Your task to perform on an android device: Go to Amazon Image 0: 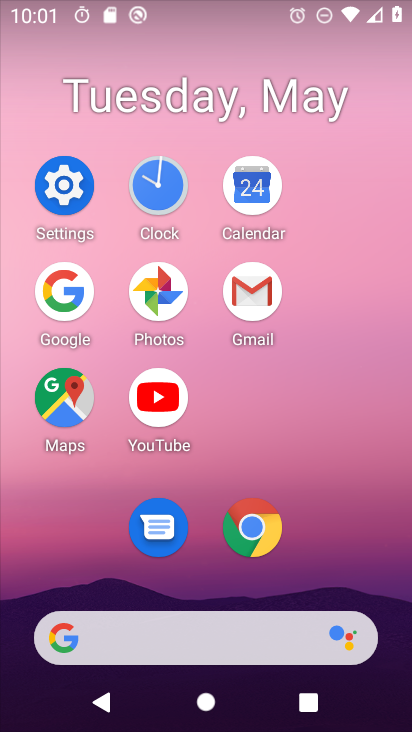
Step 0: click (272, 529)
Your task to perform on an android device: Go to Amazon Image 1: 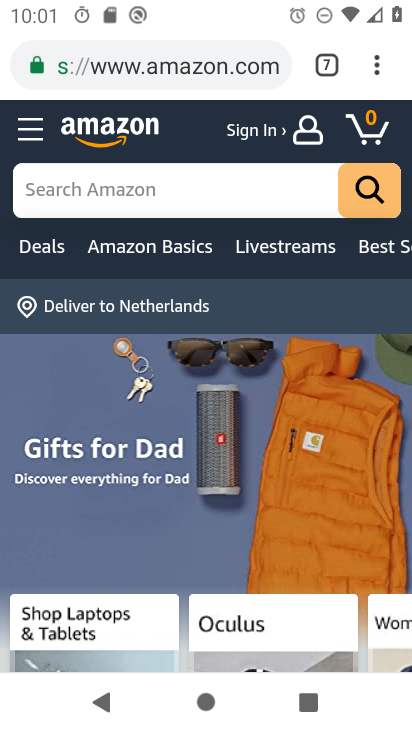
Step 1: task complete